Your task to perform on an android device: Go to network settings Image 0: 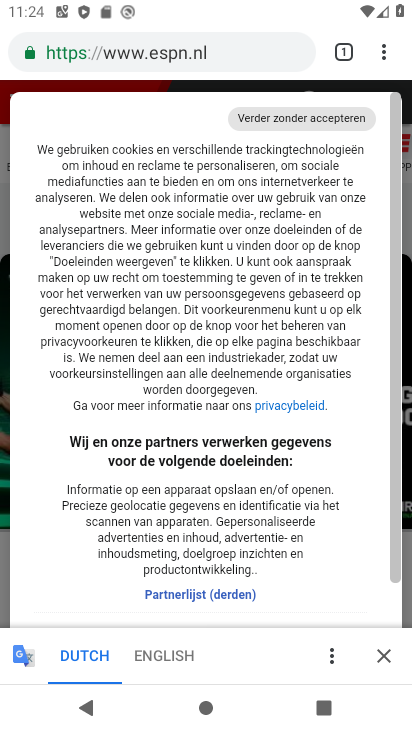
Step 0: press home button
Your task to perform on an android device: Go to network settings Image 1: 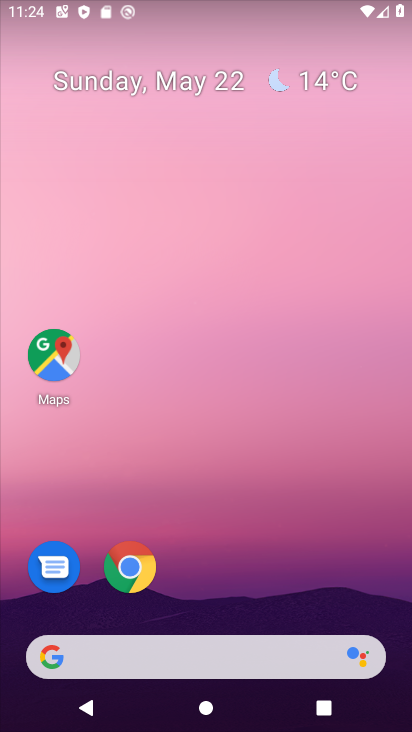
Step 1: drag from (169, 604) to (258, 179)
Your task to perform on an android device: Go to network settings Image 2: 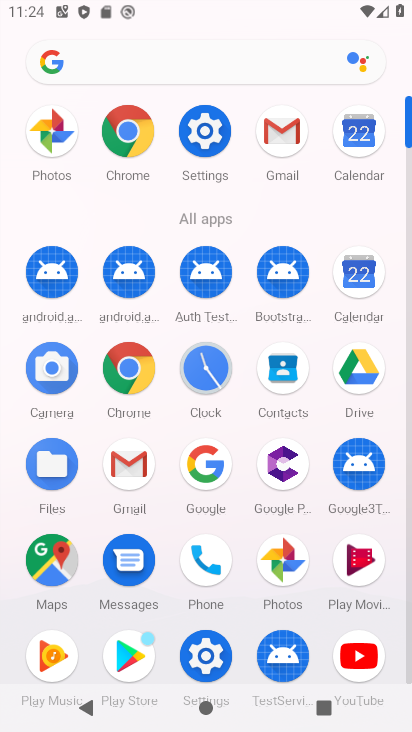
Step 2: click (199, 131)
Your task to perform on an android device: Go to network settings Image 3: 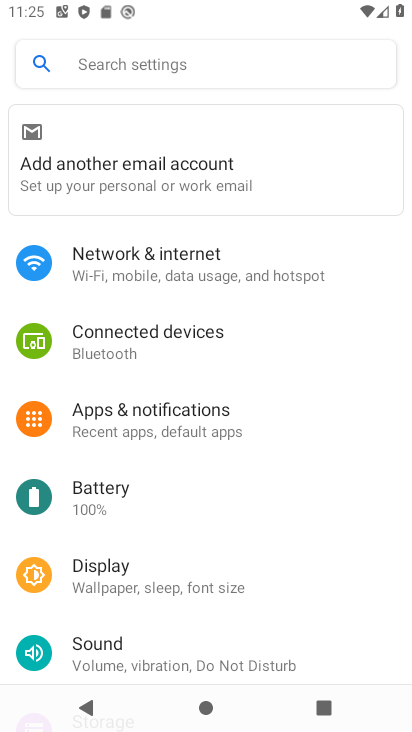
Step 3: click (192, 294)
Your task to perform on an android device: Go to network settings Image 4: 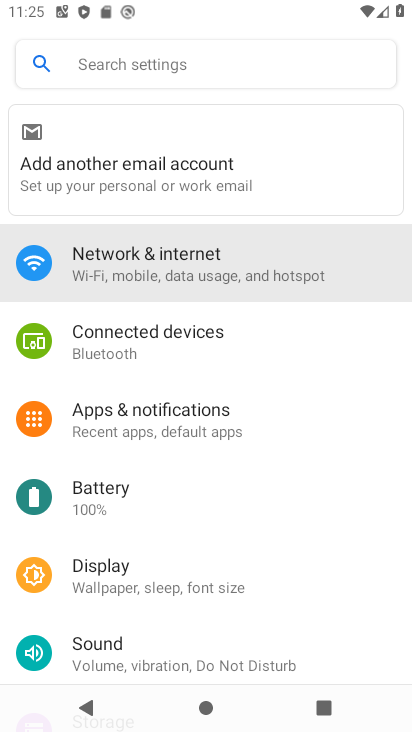
Step 4: click (193, 276)
Your task to perform on an android device: Go to network settings Image 5: 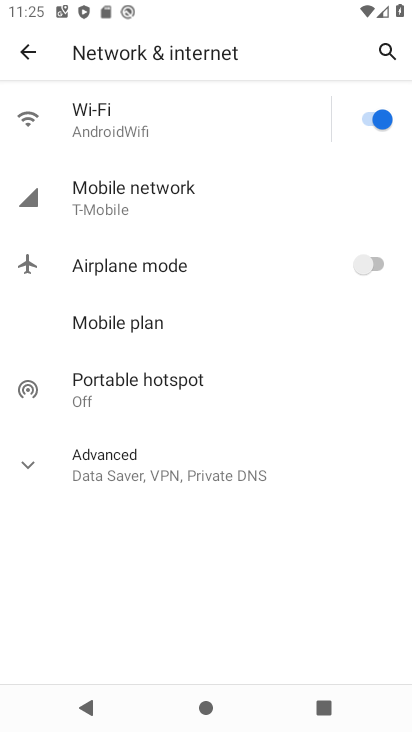
Step 5: click (159, 194)
Your task to perform on an android device: Go to network settings Image 6: 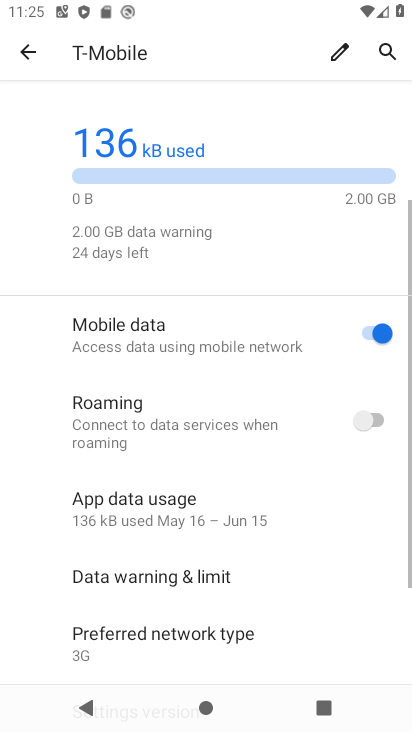
Step 6: task complete